Your task to perform on an android device: open app "Google Photos" Image 0: 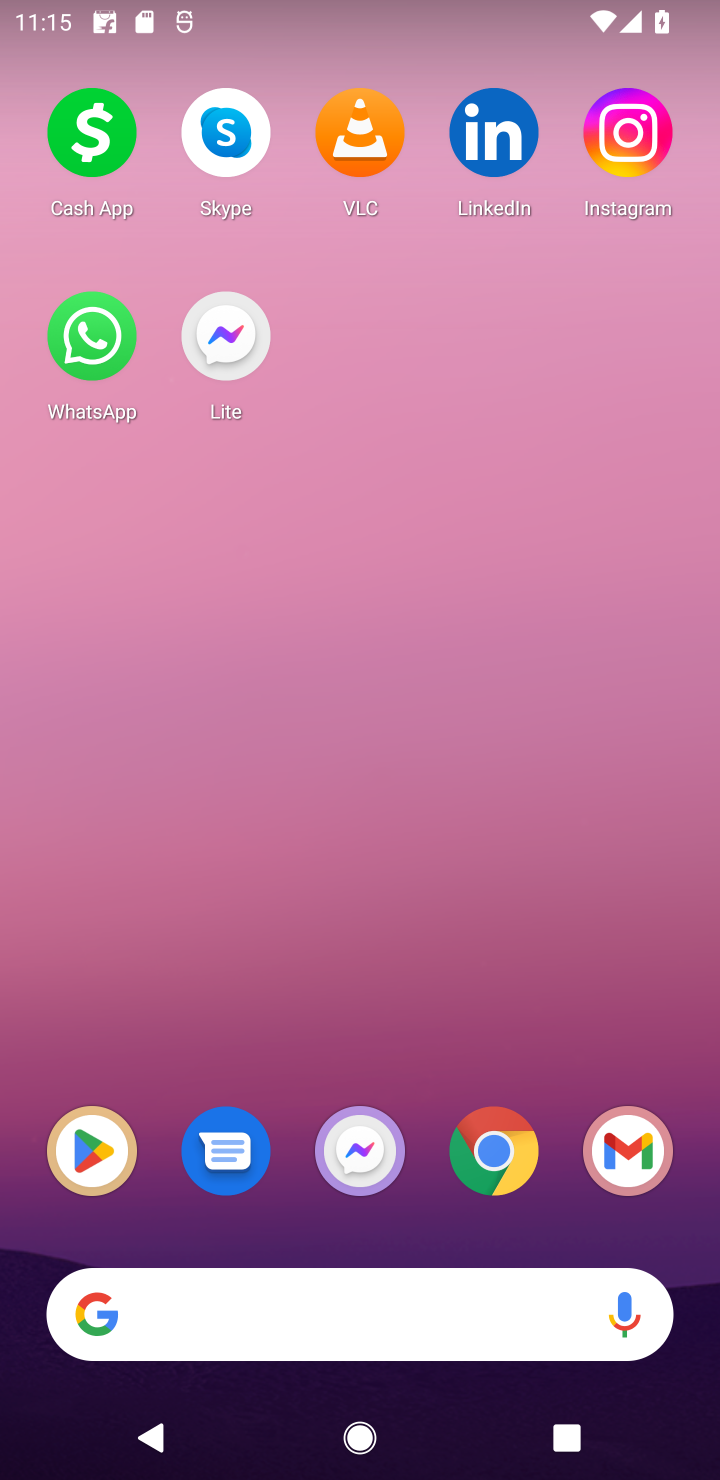
Step 0: click (80, 1169)
Your task to perform on an android device: open app "Google Photos" Image 1: 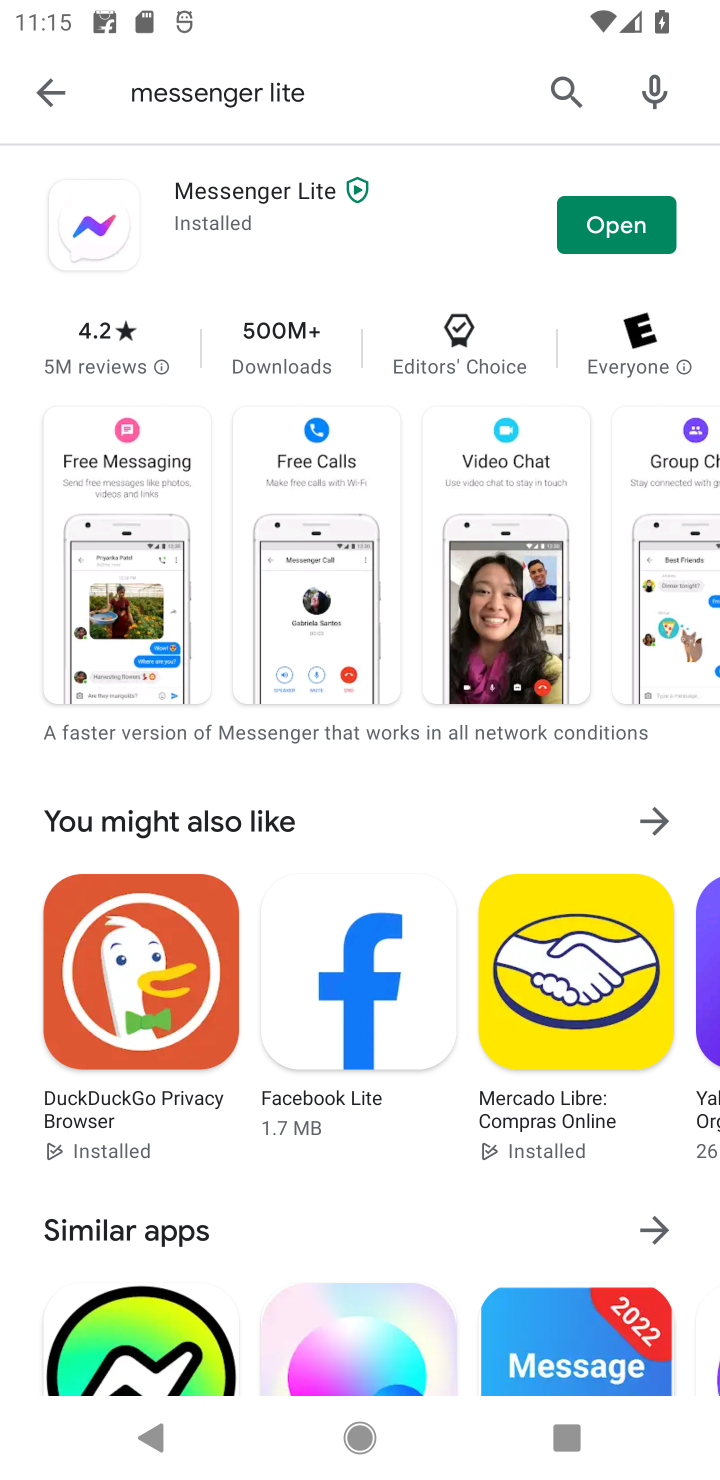
Step 1: click (563, 87)
Your task to perform on an android device: open app "Google Photos" Image 2: 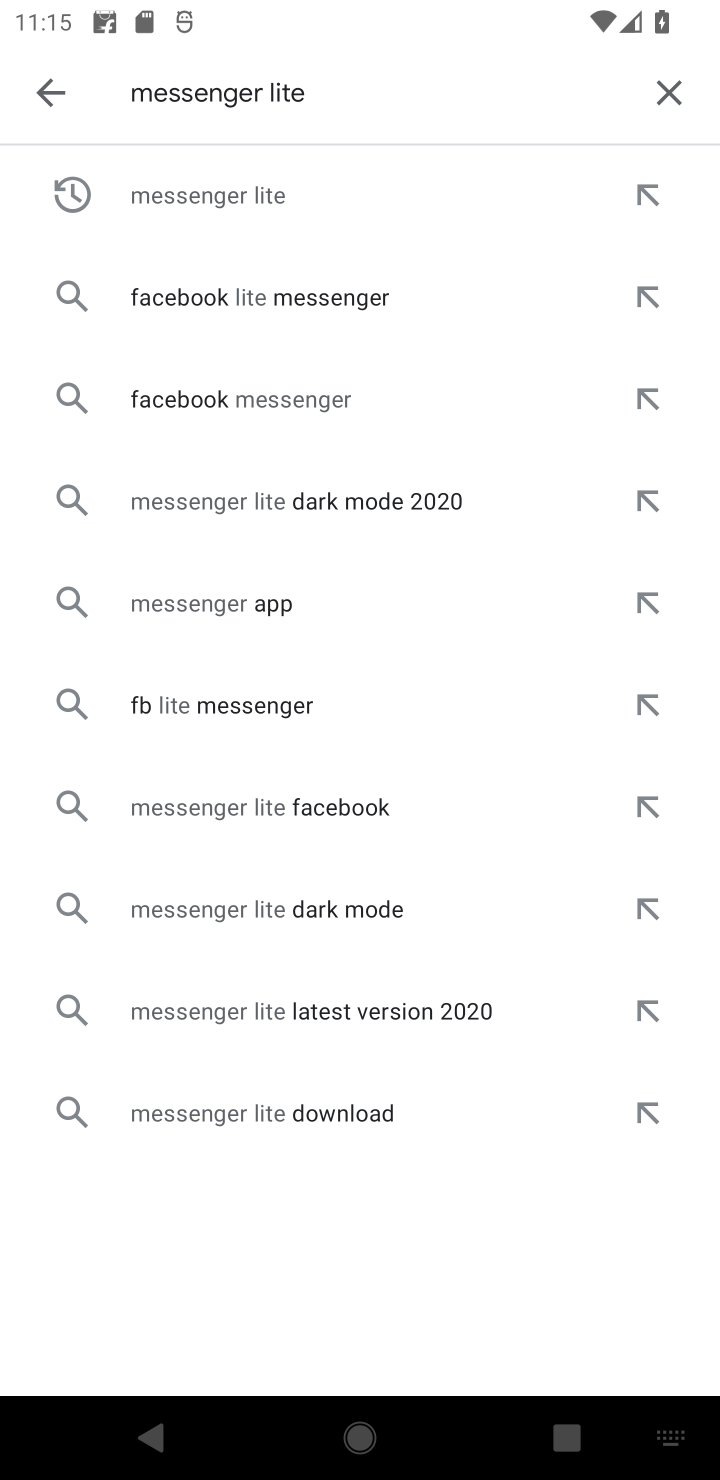
Step 2: click (660, 94)
Your task to perform on an android device: open app "Google Photos" Image 3: 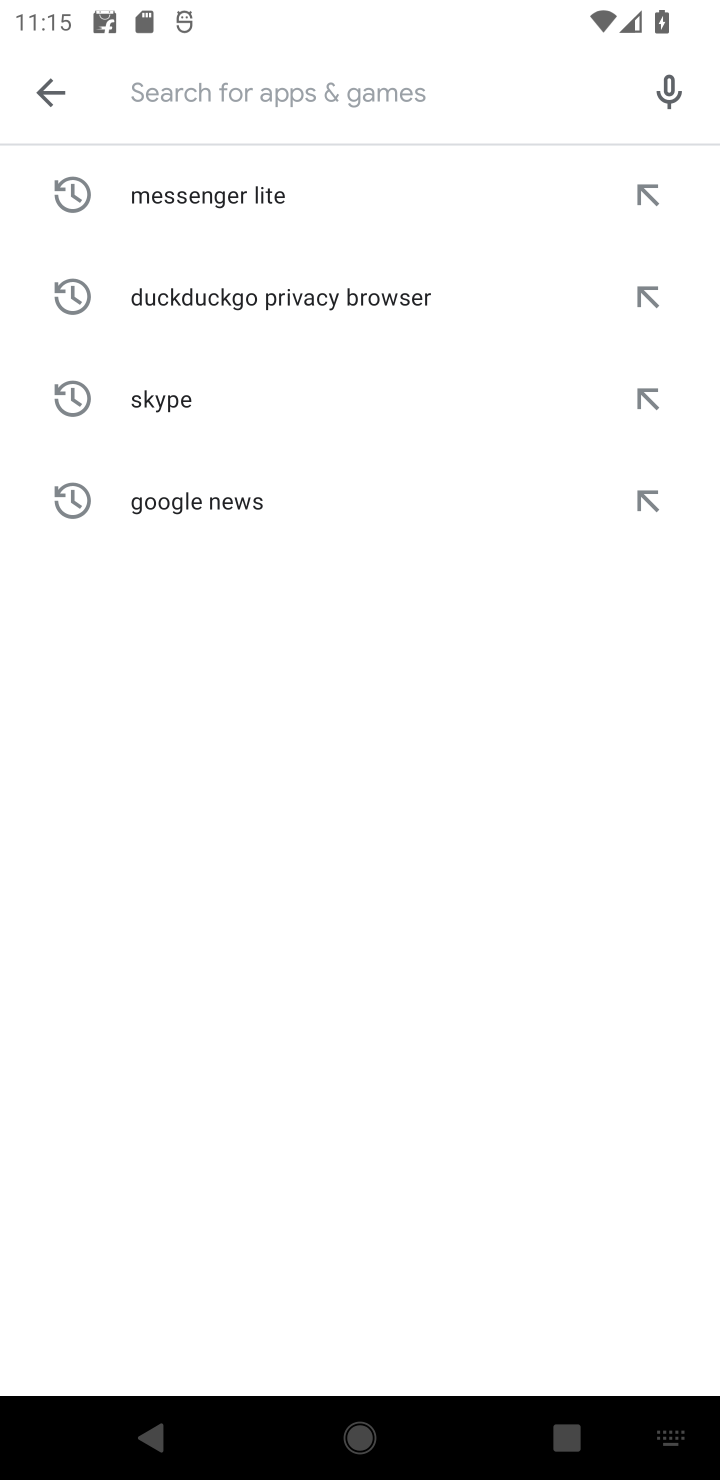
Step 3: type "Google Photos"
Your task to perform on an android device: open app "Google Photos" Image 4: 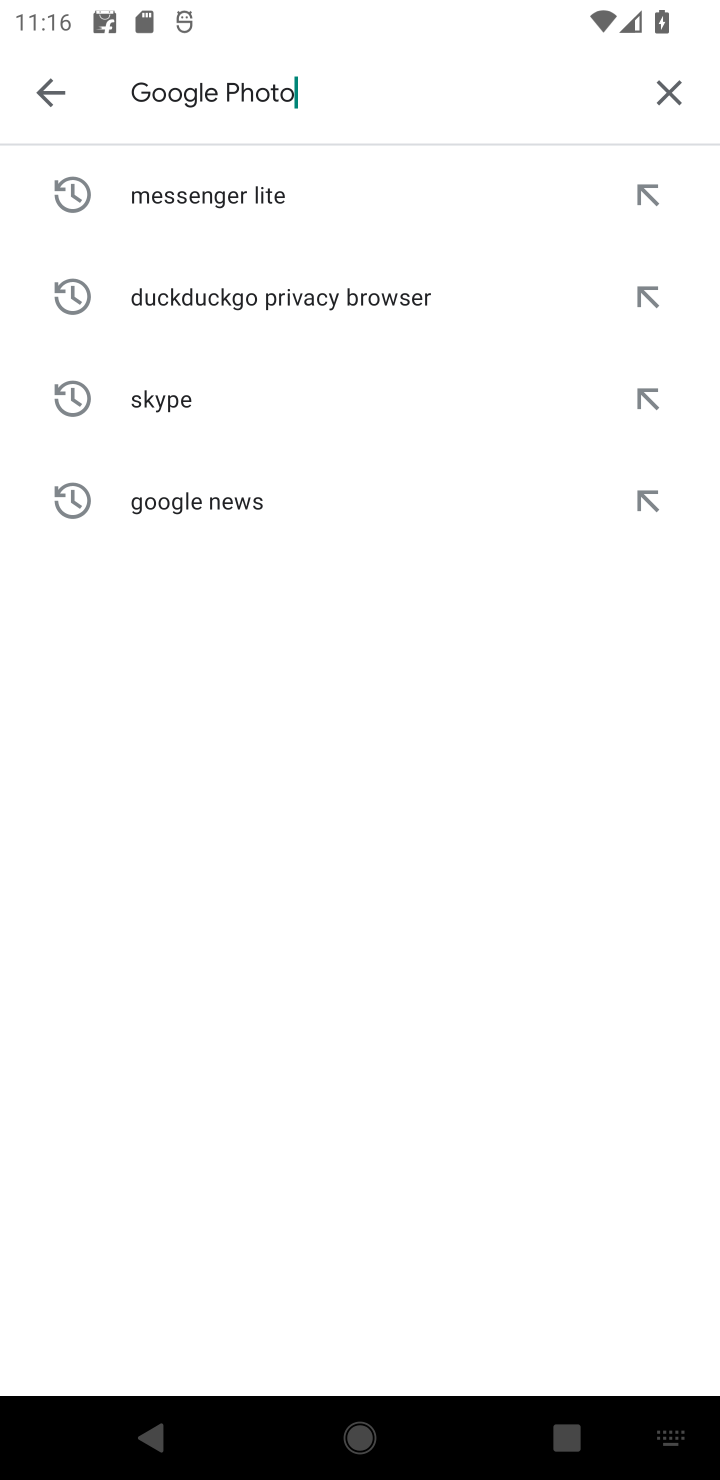
Step 4: type ""
Your task to perform on an android device: open app "Google Photos" Image 5: 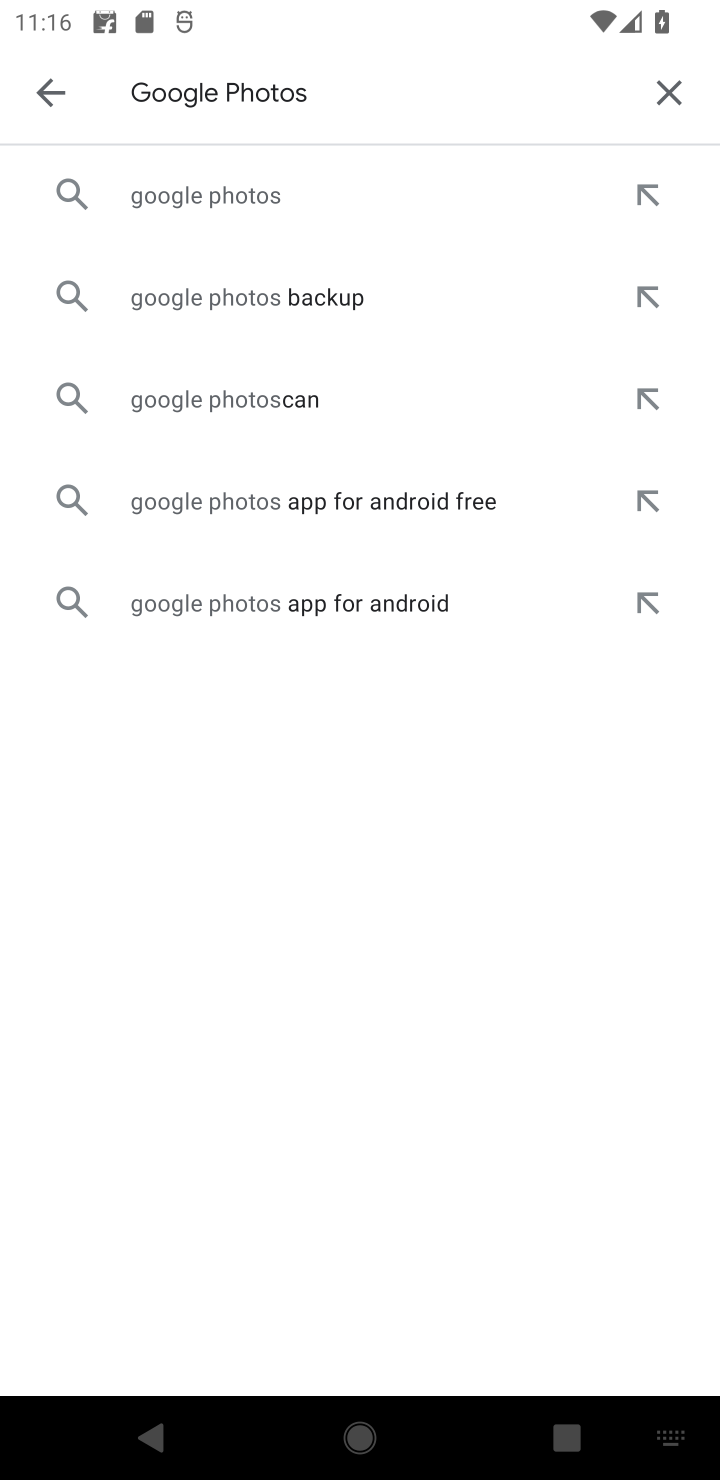
Step 5: click (240, 221)
Your task to perform on an android device: open app "Google Photos" Image 6: 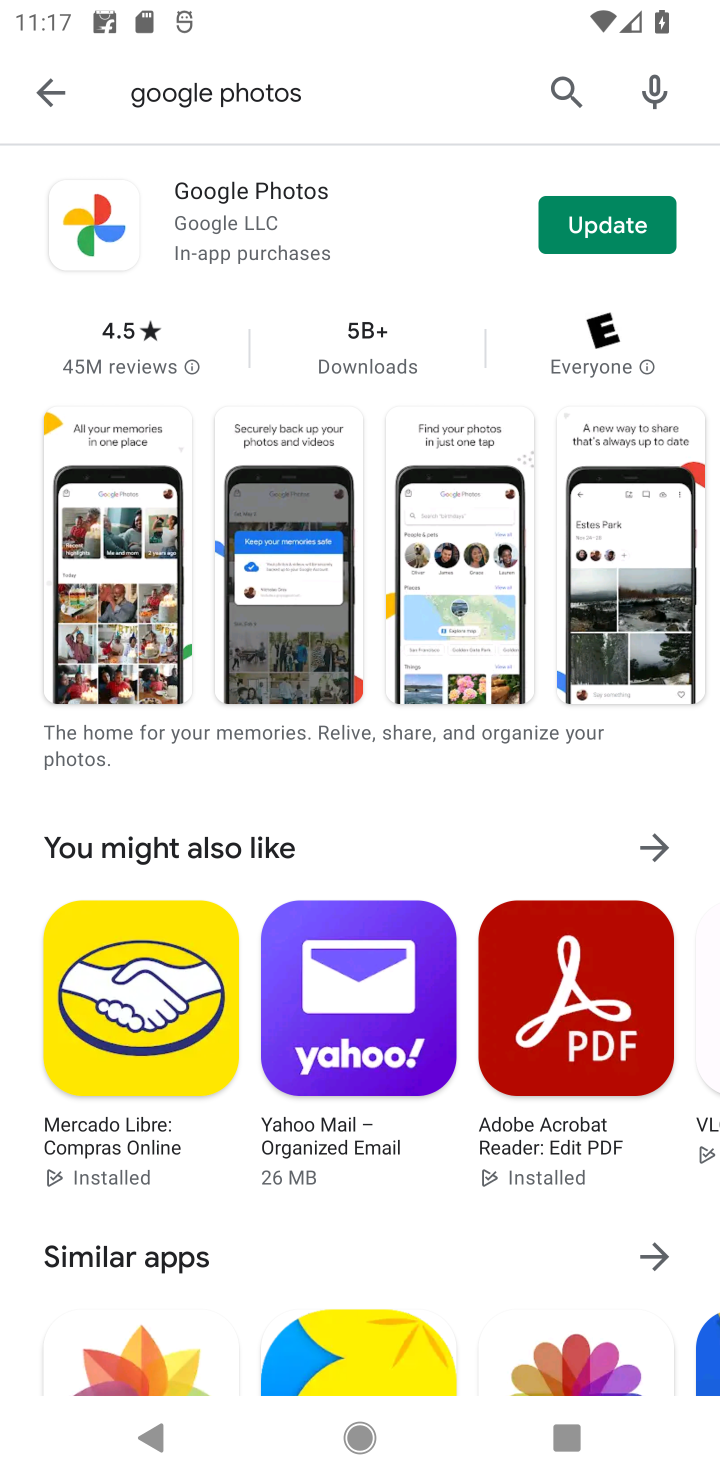
Step 6: click (353, 207)
Your task to perform on an android device: open app "Google Photos" Image 7: 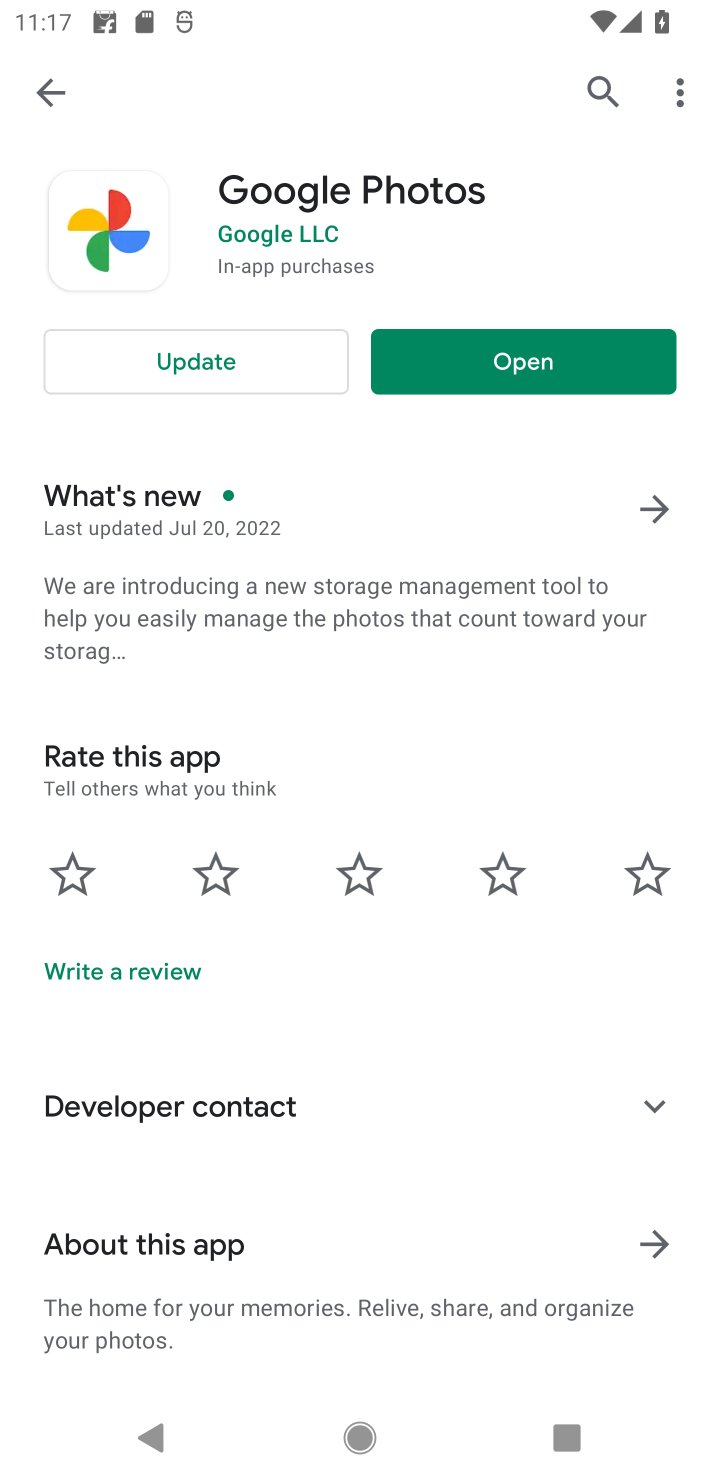
Step 7: click (530, 355)
Your task to perform on an android device: open app "Google Photos" Image 8: 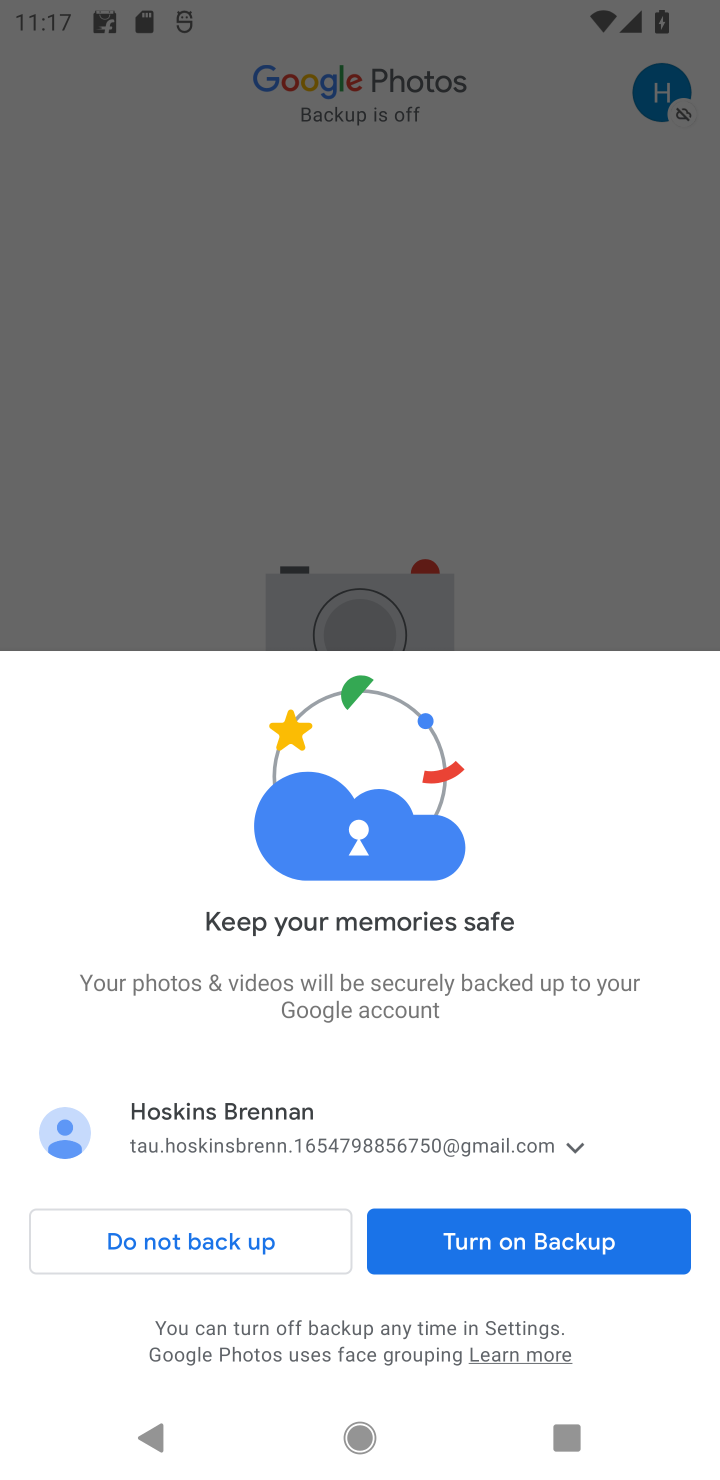
Step 8: task complete